Your task to perform on an android device: Open settings on Google Maps Image 0: 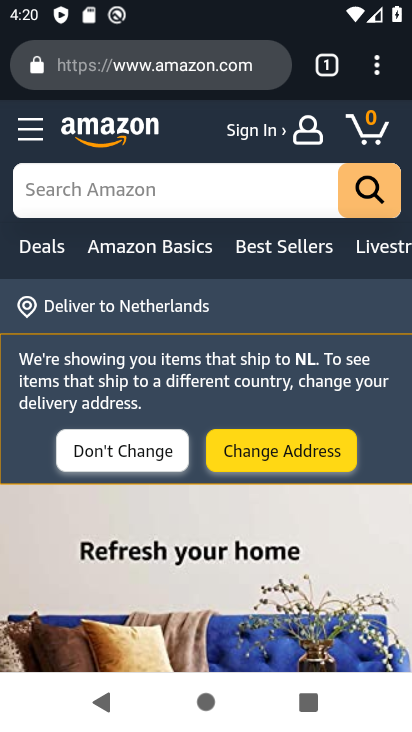
Step 0: press home button
Your task to perform on an android device: Open settings on Google Maps Image 1: 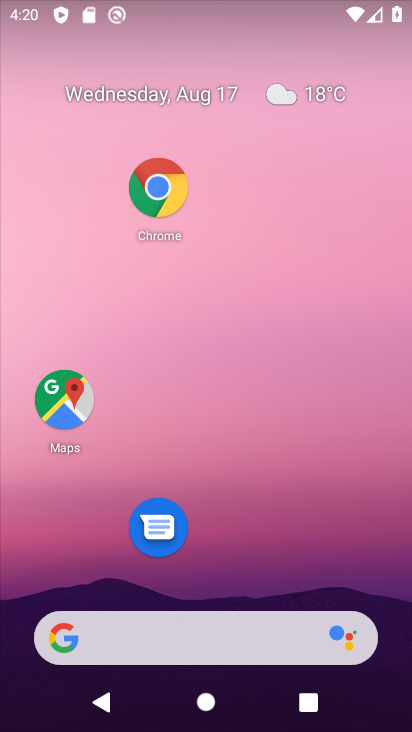
Step 1: click (58, 383)
Your task to perform on an android device: Open settings on Google Maps Image 2: 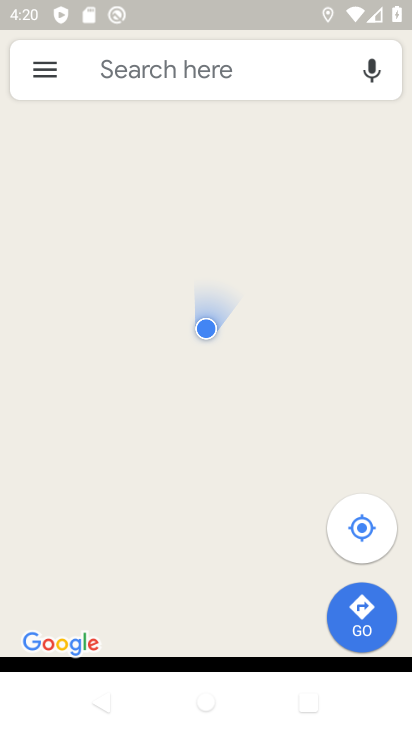
Step 2: click (48, 68)
Your task to perform on an android device: Open settings on Google Maps Image 3: 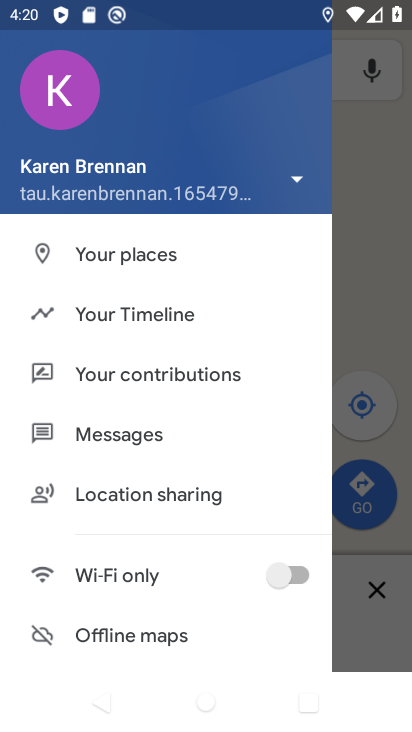
Step 3: drag from (105, 593) to (176, 220)
Your task to perform on an android device: Open settings on Google Maps Image 4: 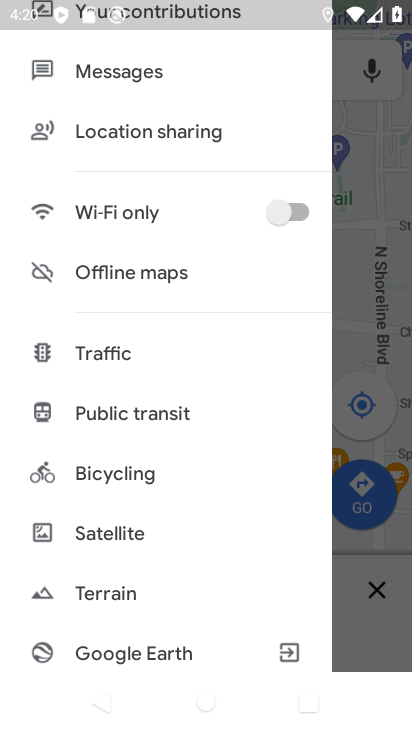
Step 4: drag from (118, 608) to (173, 207)
Your task to perform on an android device: Open settings on Google Maps Image 5: 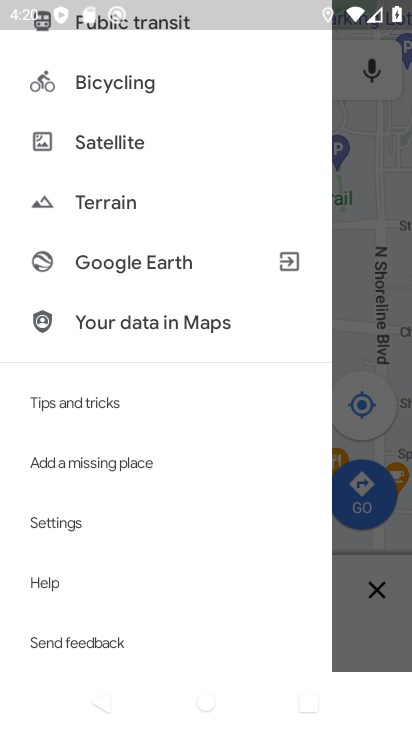
Step 5: click (75, 539)
Your task to perform on an android device: Open settings on Google Maps Image 6: 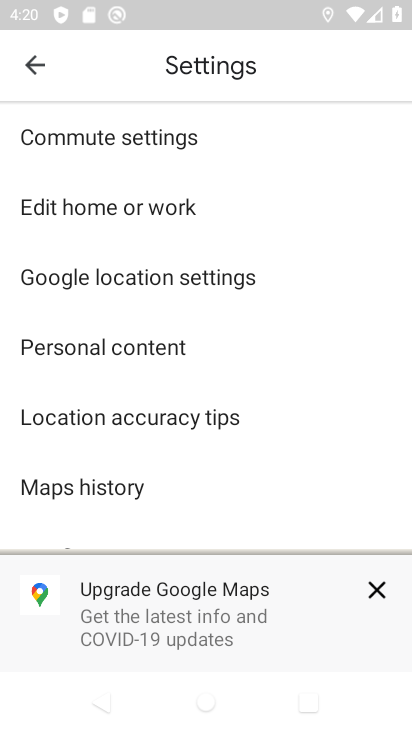
Step 6: task complete